Your task to perform on an android device: Open eBay Image 0: 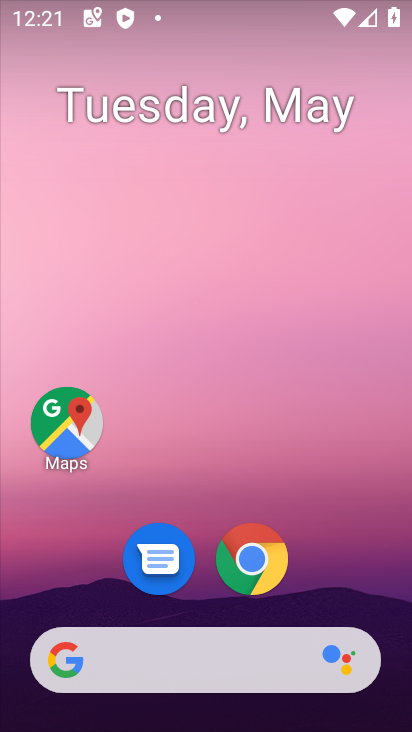
Step 0: click (238, 642)
Your task to perform on an android device: Open eBay Image 1: 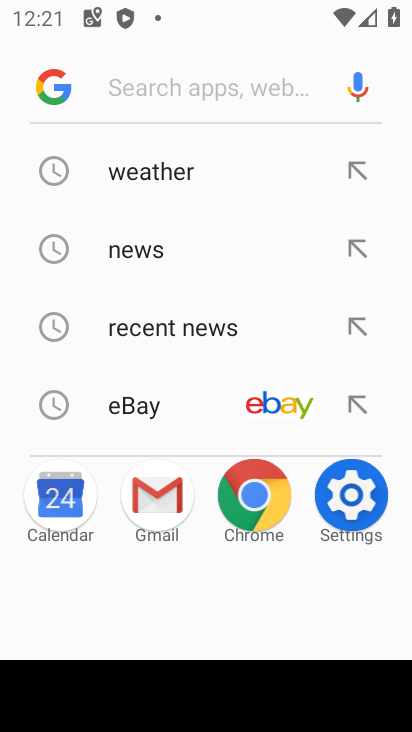
Step 1: click (157, 388)
Your task to perform on an android device: Open eBay Image 2: 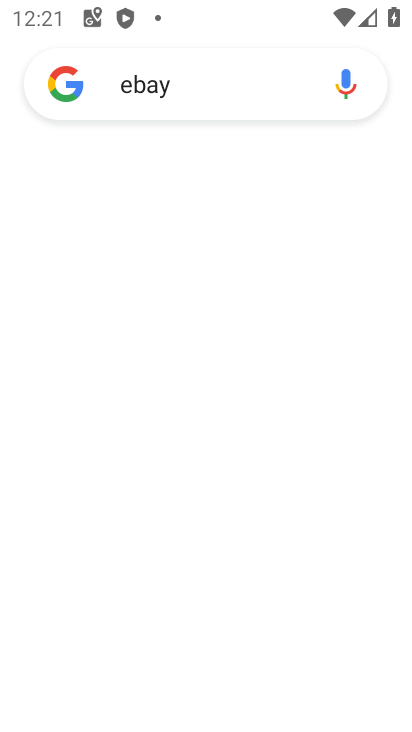
Step 2: task complete